Your task to perform on an android device: Open Yahoo.com Image 0: 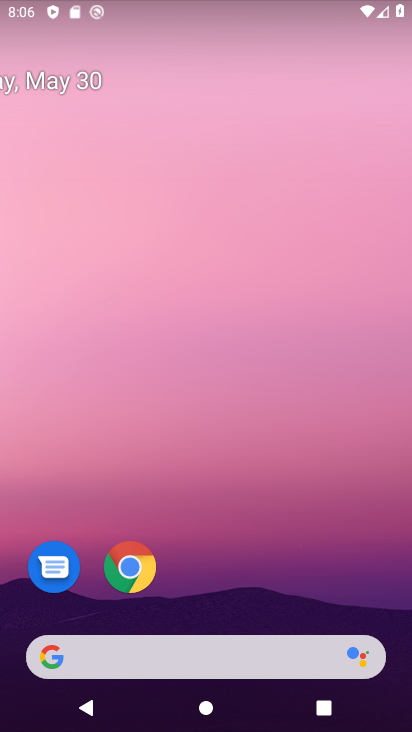
Step 0: click (142, 569)
Your task to perform on an android device: Open Yahoo.com Image 1: 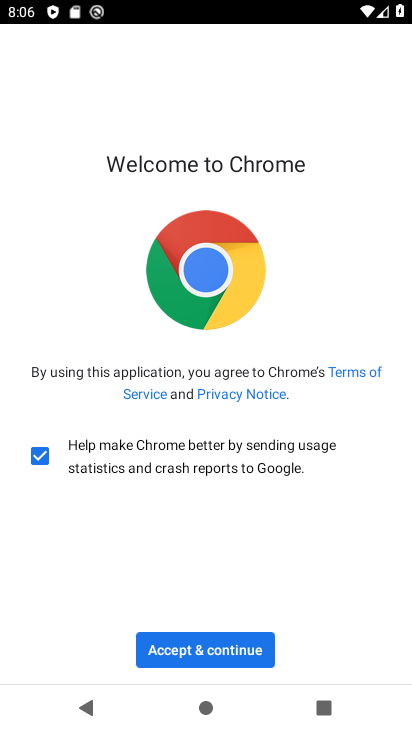
Step 1: click (229, 654)
Your task to perform on an android device: Open Yahoo.com Image 2: 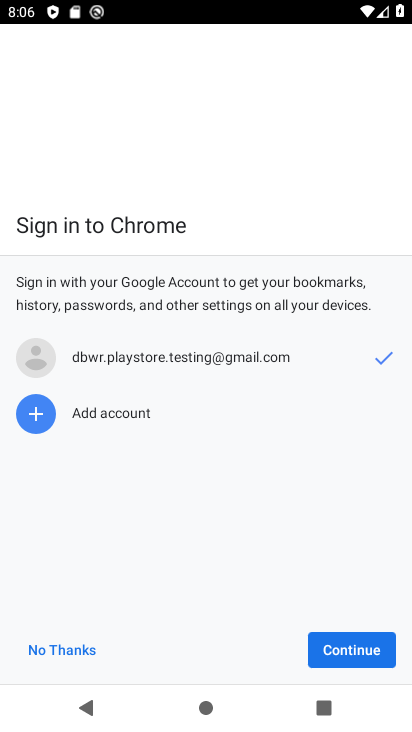
Step 2: click (386, 654)
Your task to perform on an android device: Open Yahoo.com Image 3: 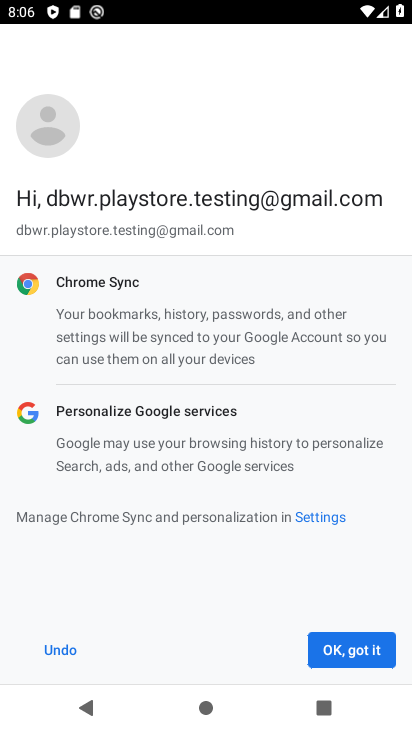
Step 3: click (386, 654)
Your task to perform on an android device: Open Yahoo.com Image 4: 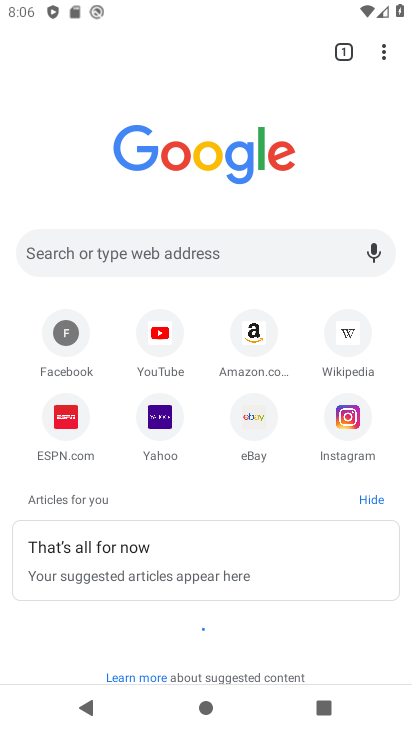
Step 4: click (161, 420)
Your task to perform on an android device: Open Yahoo.com Image 5: 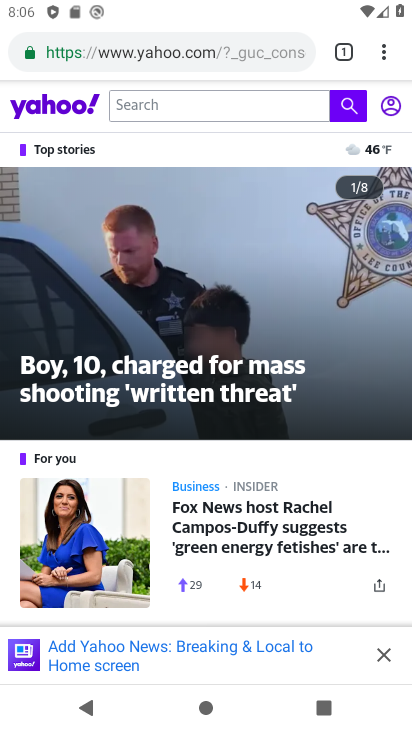
Step 5: task complete